Your task to perform on an android device: open chrome privacy settings Image 0: 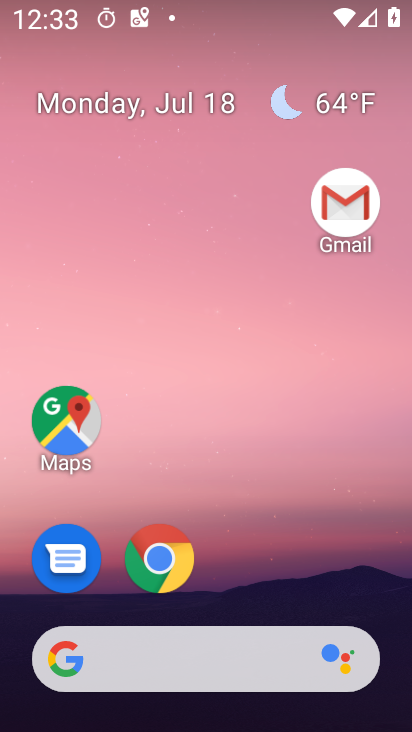
Step 0: drag from (267, 554) to (303, 101)
Your task to perform on an android device: open chrome privacy settings Image 1: 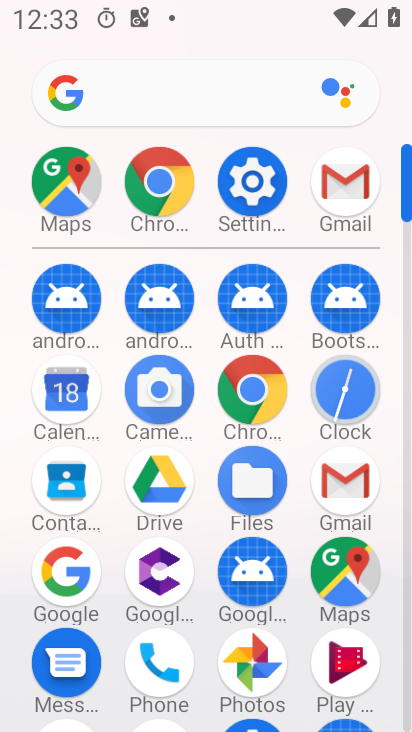
Step 1: click (267, 392)
Your task to perform on an android device: open chrome privacy settings Image 2: 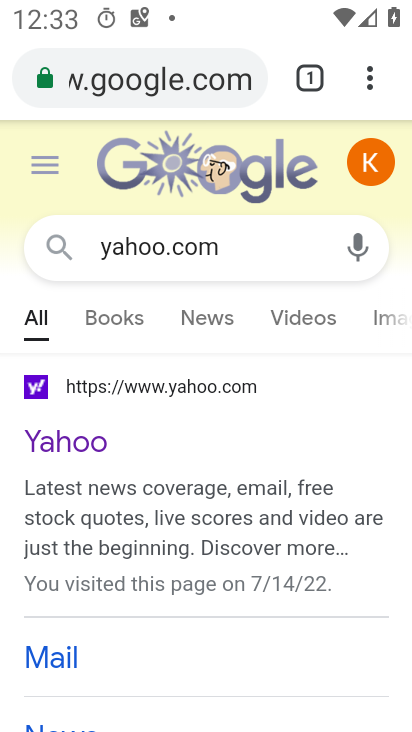
Step 2: click (371, 90)
Your task to perform on an android device: open chrome privacy settings Image 3: 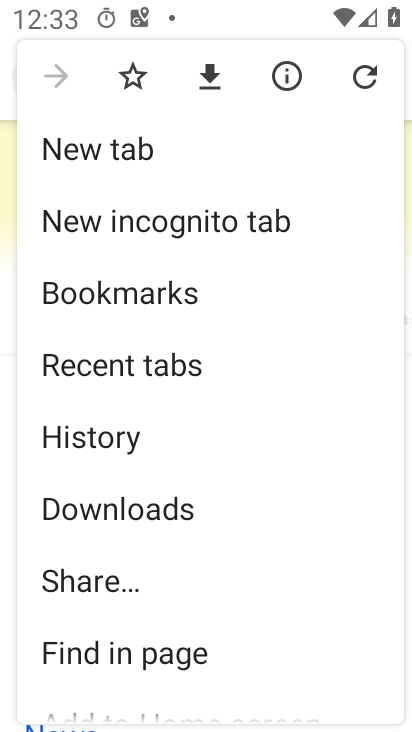
Step 3: drag from (338, 486) to (336, 397)
Your task to perform on an android device: open chrome privacy settings Image 4: 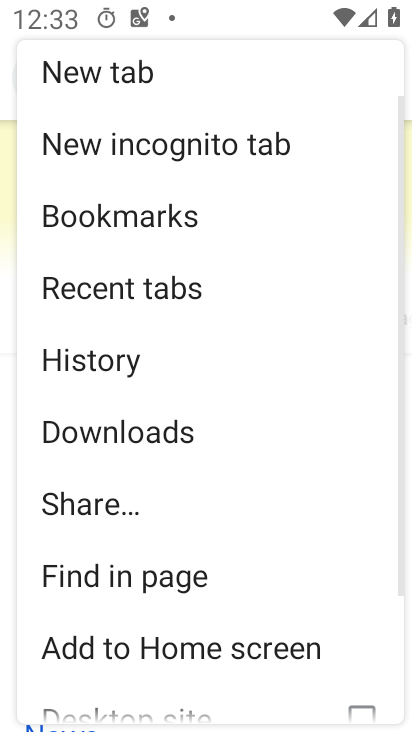
Step 4: drag from (327, 552) to (328, 443)
Your task to perform on an android device: open chrome privacy settings Image 5: 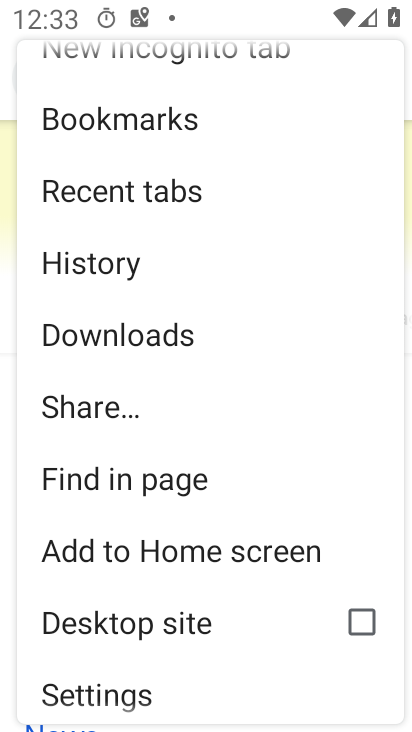
Step 5: drag from (326, 494) to (334, 356)
Your task to perform on an android device: open chrome privacy settings Image 6: 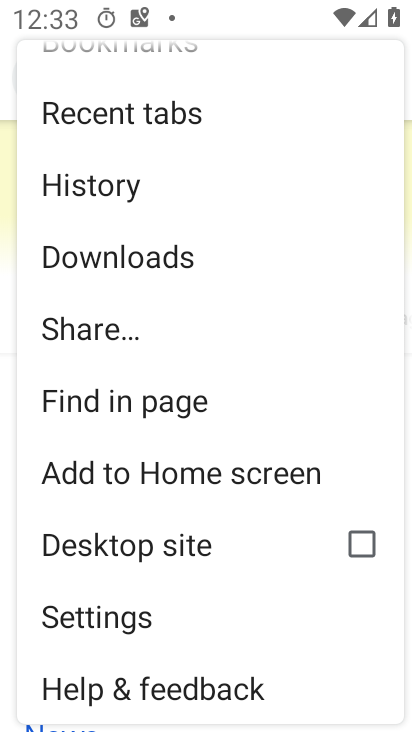
Step 6: click (201, 614)
Your task to perform on an android device: open chrome privacy settings Image 7: 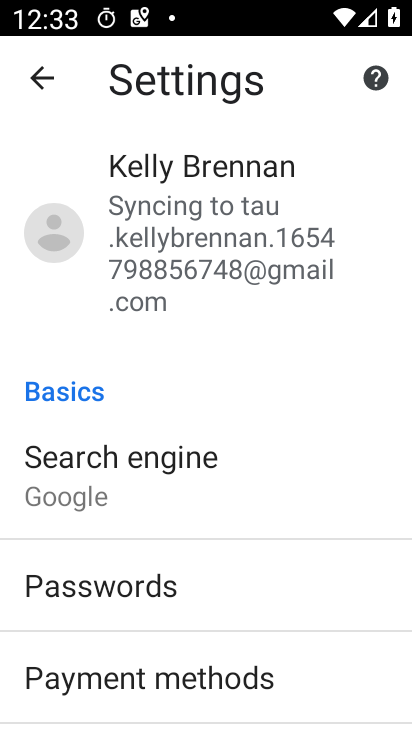
Step 7: drag from (321, 625) to (329, 452)
Your task to perform on an android device: open chrome privacy settings Image 8: 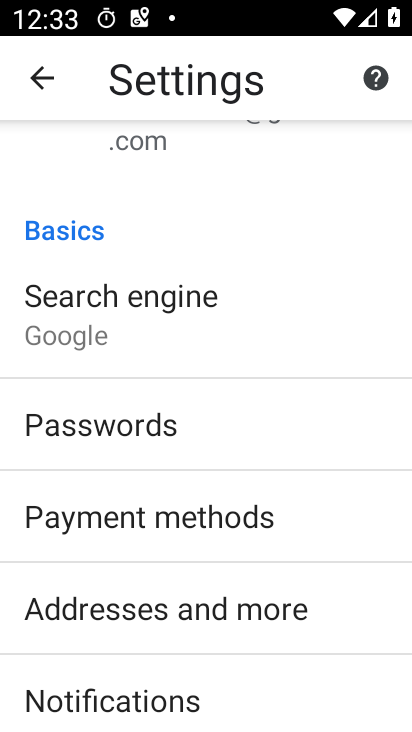
Step 8: drag from (338, 577) to (339, 426)
Your task to perform on an android device: open chrome privacy settings Image 9: 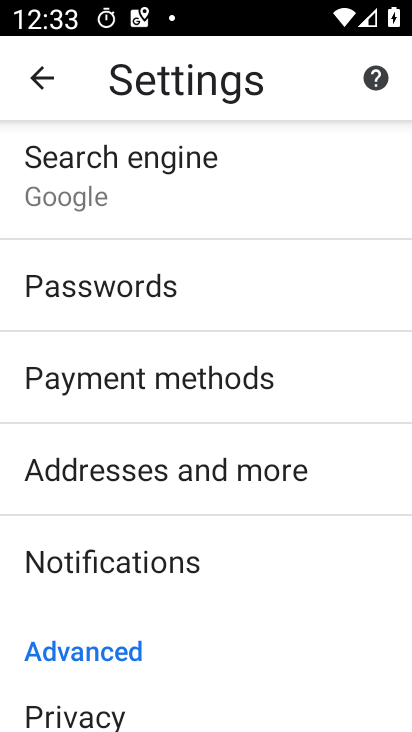
Step 9: drag from (331, 612) to (333, 455)
Your task to perform on an android device: open chrome privacy settings Image 10: 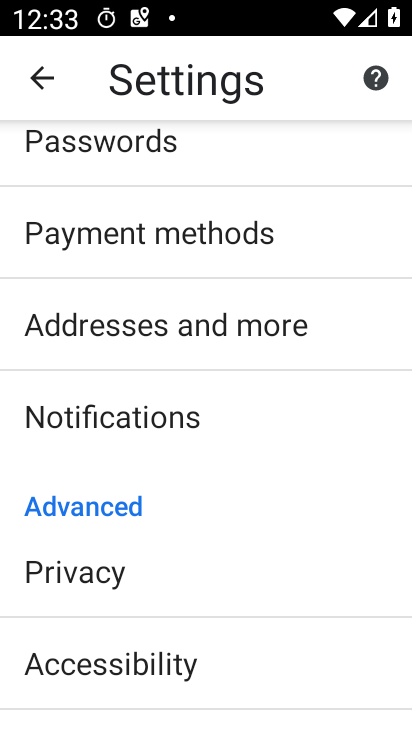
Step 10: drag from (331, 543) to (329, 447)
Your task to perform on an android device: open chrome privacy settings Image 11: 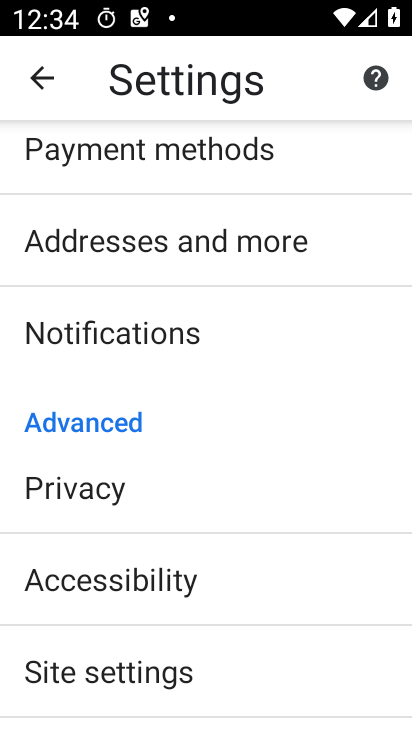
Step 11: drag from (330, 577) to (331, 389)
Your task to perform on an android device: open chrome privacy settings Image 12: 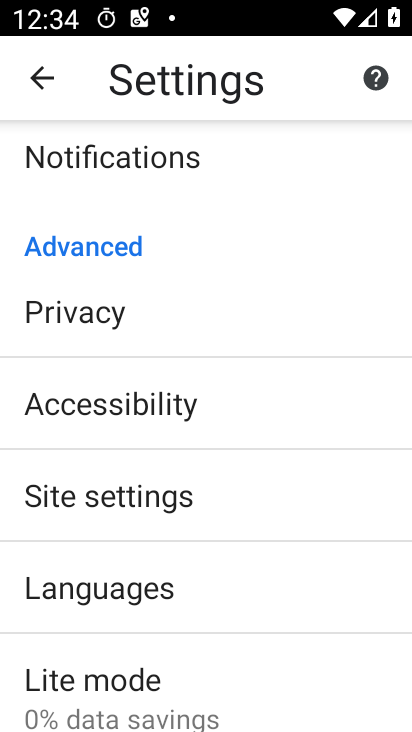
Step 12: click (231, 318)
Your task to perform on an android device: open chrome privacy settings Image 13: 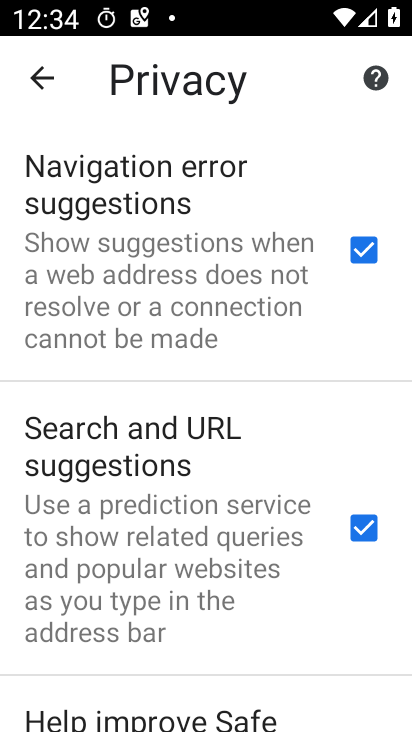
Step 13: task complete